Your task to perform on an android device: toggle pop-ups in chrome Image 0: 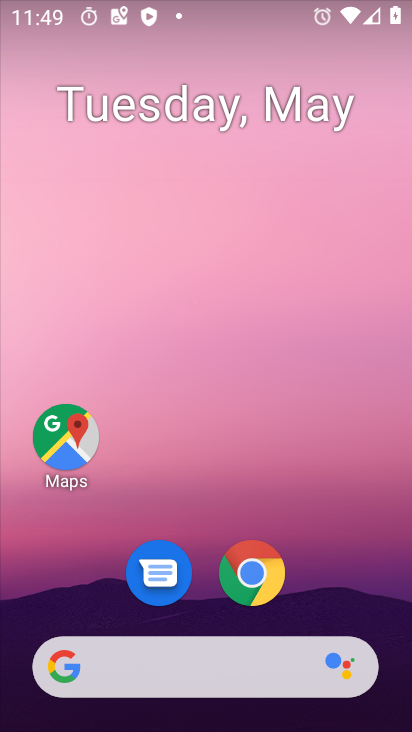
Step 0: drag from (241, 695) to (319, 331)
Your task to perform on an android device: toggle pop-ups in chrome Image 1: 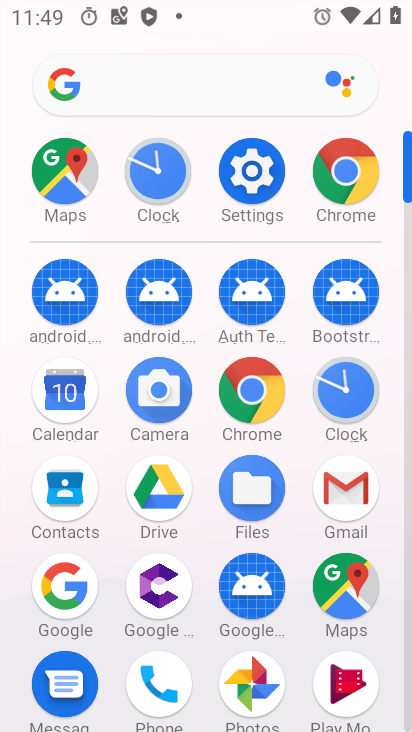
Step 1: click (357, 178)
Your task to perform on an android device: toggle pop-ups in chrome Image 2: 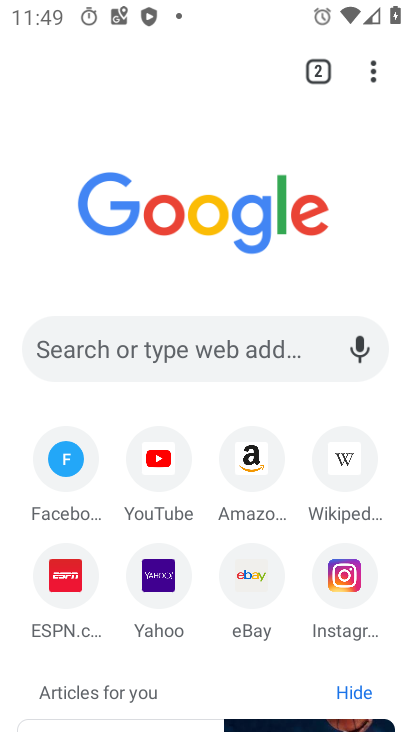
Step 2: click (366, 88)
Your task to perform on an android device: toggle pop-ups in chrome Image 3: 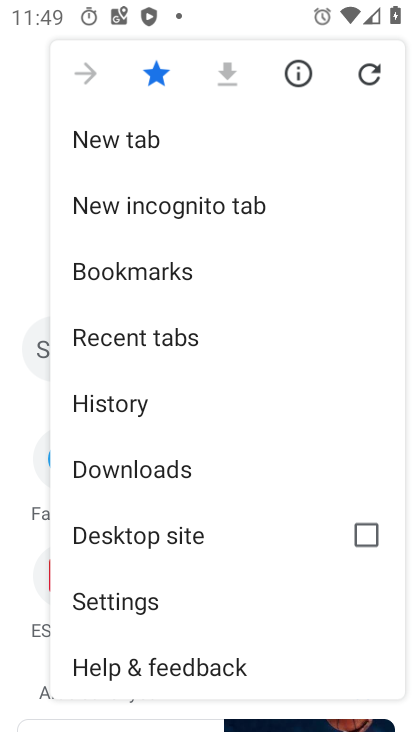
Step 3: click (123, 605)
Your task to perform on an android device: toggle pop-ups in chrome Image 4: 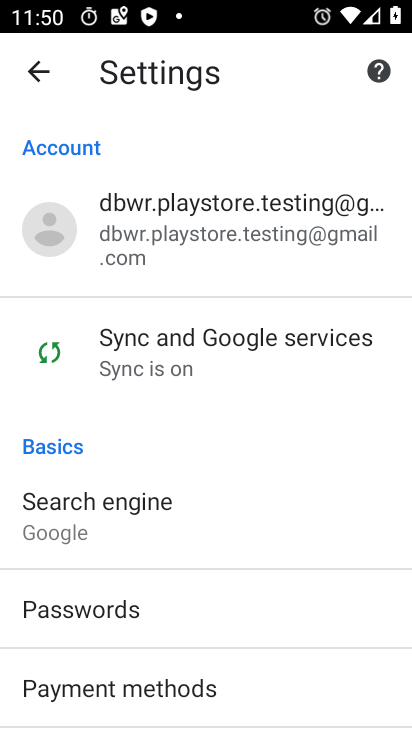
Step 4: drag from (160, 650) to (191, 452)
Your task to perform on an android device: toggle pop-ups in chrome Image 5: 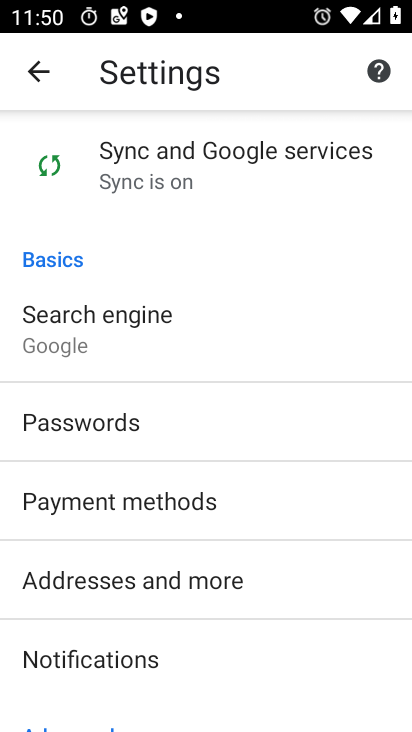
Step 5: drag from (117, 657) to (187, 449)
Your task to perform on an android device: toggle pop-ups in chrome Image 6: 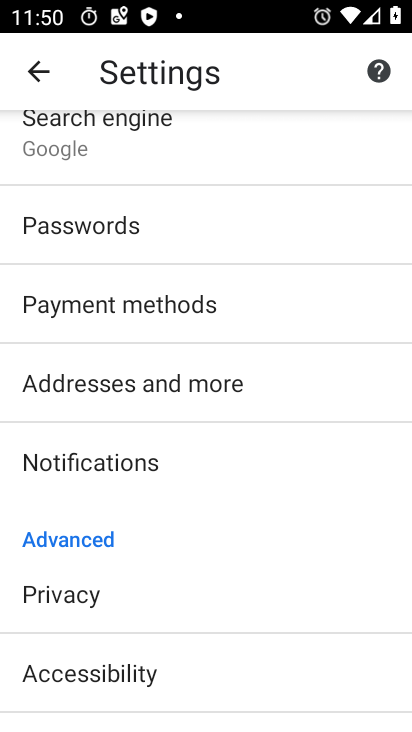
Step 6: drag from (103, 641) to (213, 488)
Your task to perform on an android device: toggle pop-ups in chrome Image 7: 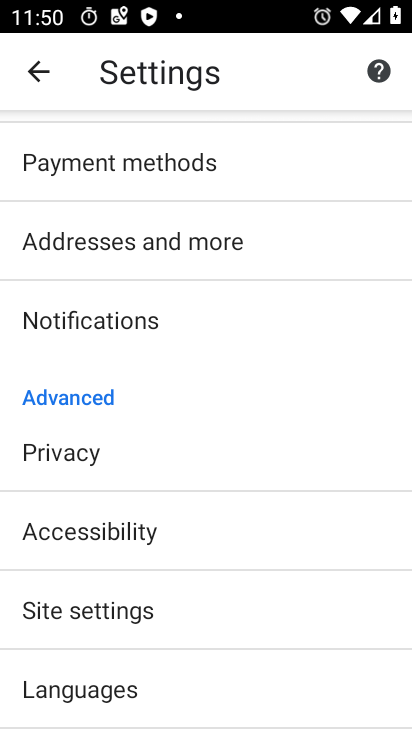
Step 7: click (136, 609)
Your task to perform on an android device: toggle pop-ups in chrome Image 8: 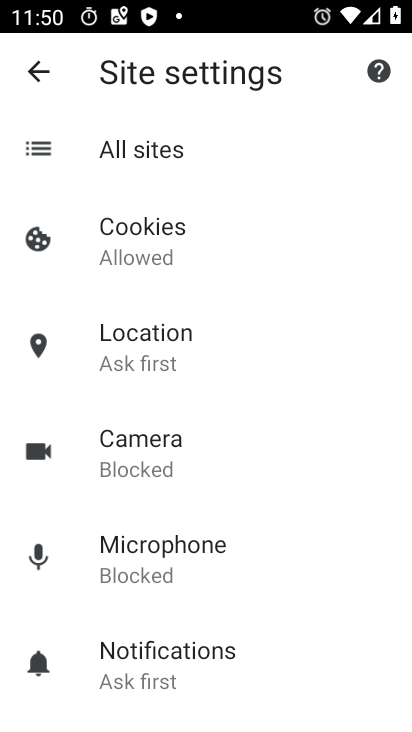
Step 8: drag from (133, 586) to (207, 359)
Your task to perform on an android device: toggle pop-ups in chrome Image 9: 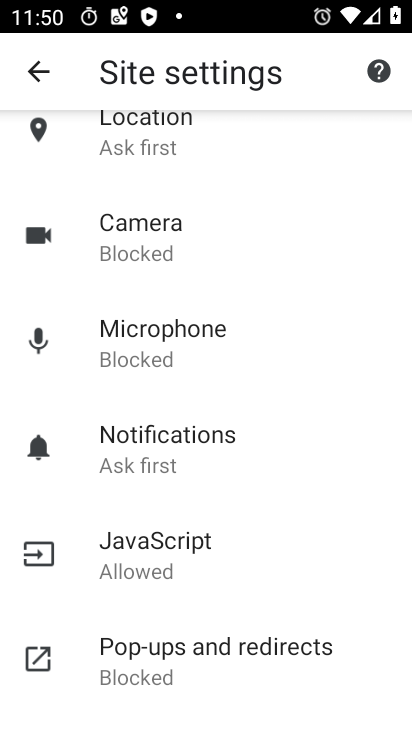
Step 9: click (119, 652)
Your task to perform on an android device: toggle pop-ups in chrome Image 10: 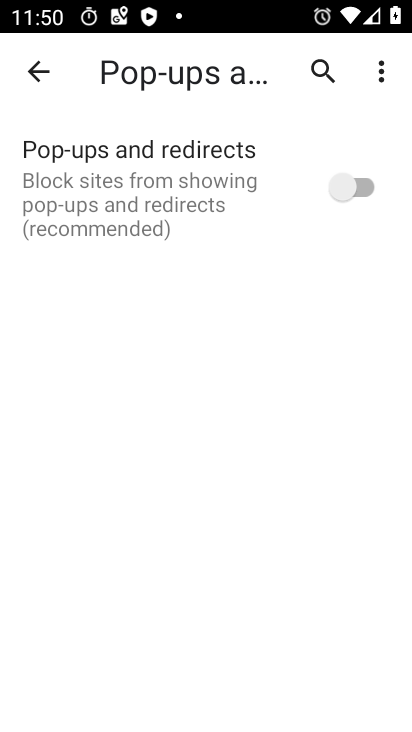
Step 10: click (362, 206)
Your task to perform on an android device: toggle pop-ups in chrome Image 11: 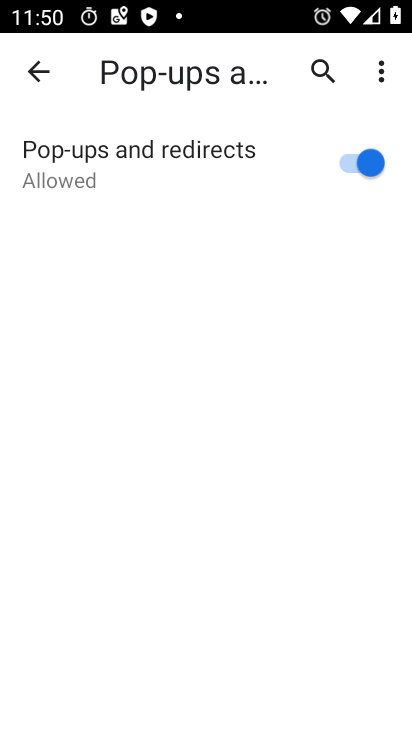
Step 11: task complete